Your task to perform on an android device: turn off javascript in the chrome app Image 0: 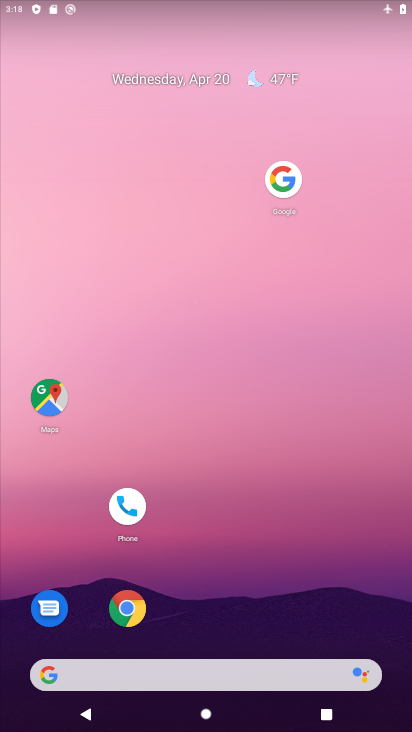
Step 0: click (128, 607)
Your task to perform on an android device: turn off javascript in the chrome app Image 1: 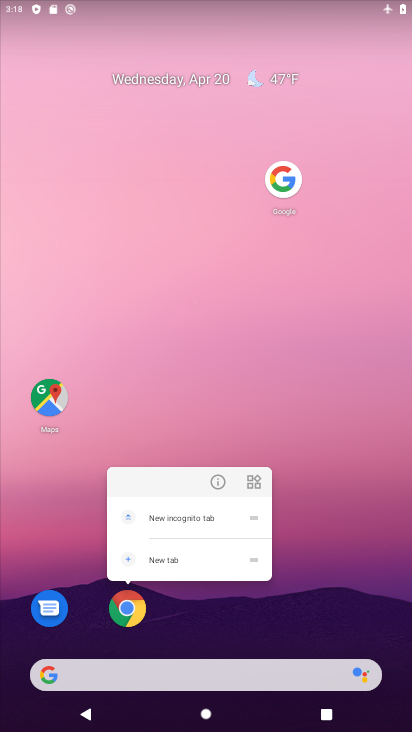
Step 1: click (128, 607)
Your task to perform on an android device: turn off javascript in the chrome app Image 2: 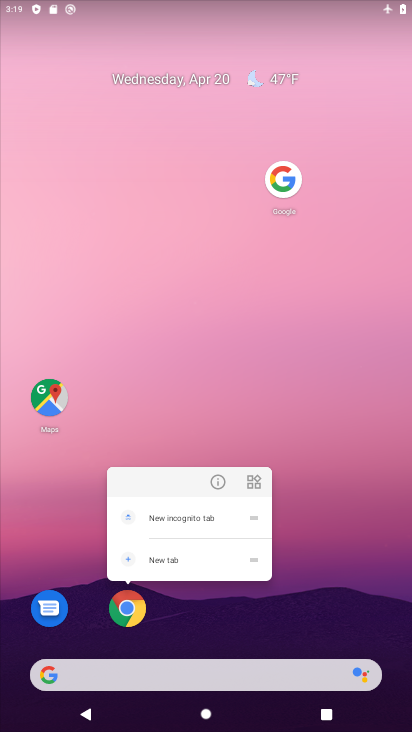
Step 2: drag from (305, 577) to (285, 2)
Your task to perform on an android device: turn off javascript in the chrome app Image 3: 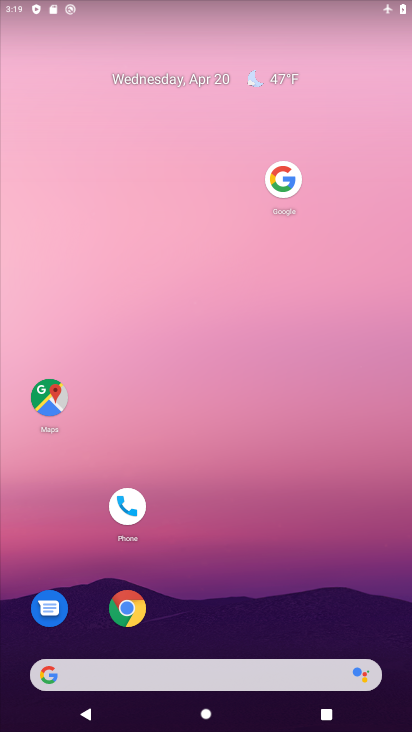
Step 3: drag from (351, 505) to (311, 52)
Your task to perform on an android device: turn off javascript in the chrome app Image 4: 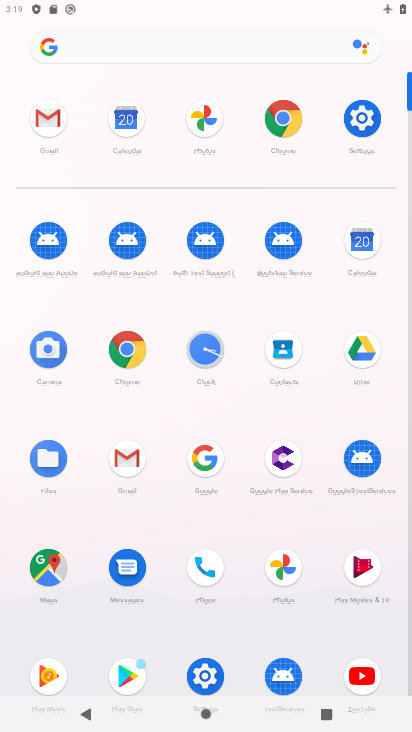
Step 4: click (124, 346)
Your task to perform on an android device: turn off javascript in the chrome app Image 5: 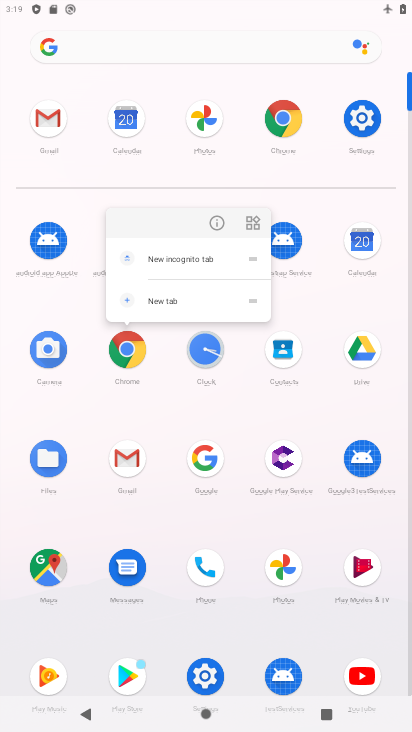
Step 5: click (125, 356)
Your task to perform on an android device: turn off javascript in the chrome app Image 6: 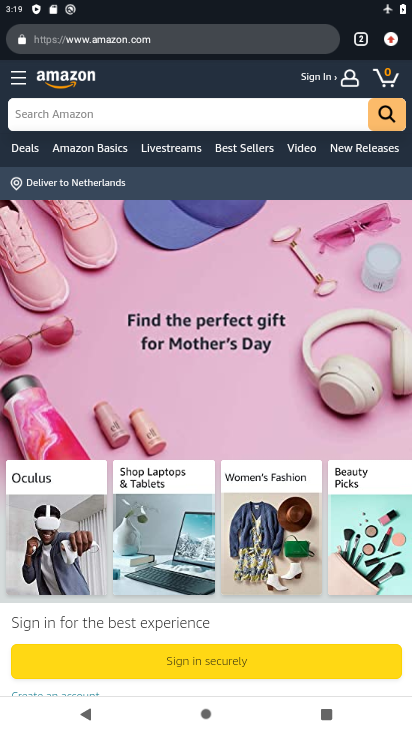
Step 6: drag from (401, 39) to (256, 473)
Your task to perform on an android device: turn off javascript in the chrome app Image 7: 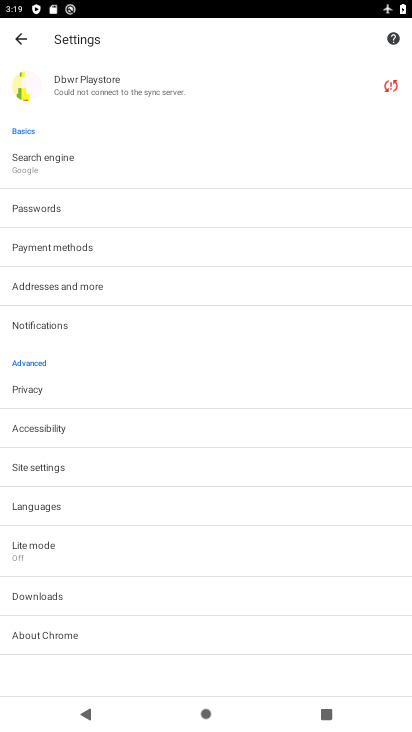
Step 7: click (50, 472)
Your task to perform on an android device: turn off javascript in the chrome app Image 8: 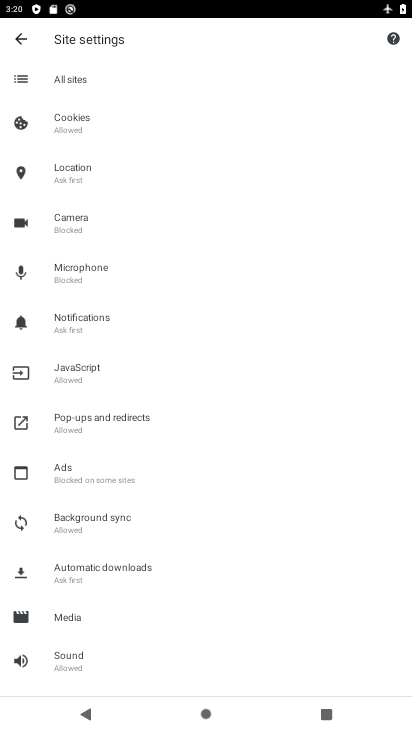
Step 8: click (75, 369)
Your task to perform on an android device: turn off javascript in the chrome app Image 9: 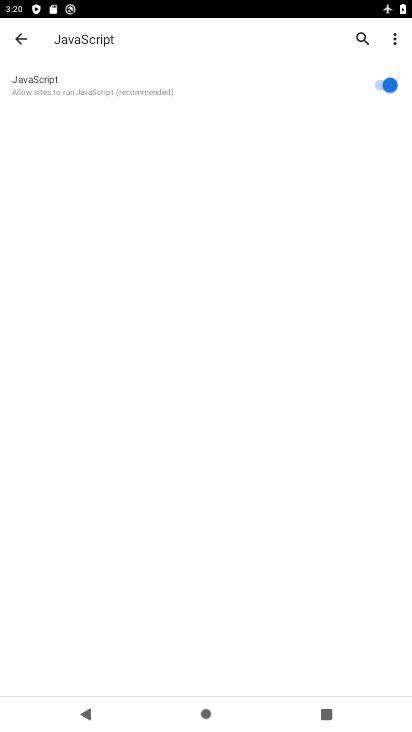
Step 9: click (366, 84)
Your task to perform on an android device: turn off javascript in the chrome app Image 10: 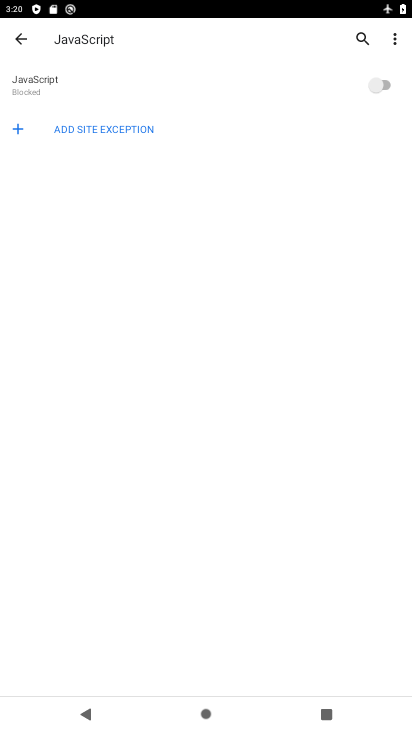
Step 10: task complete